Your task to perform on an android device: Open maps Image 0: 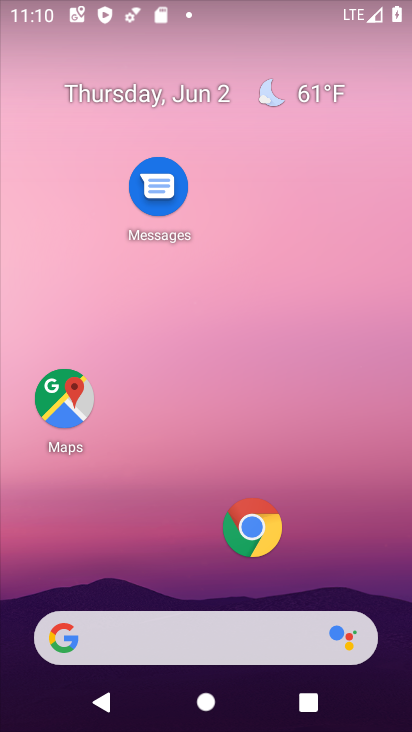
Step 0: press home button
Your task to perform on an android device: Open maps Image 1: 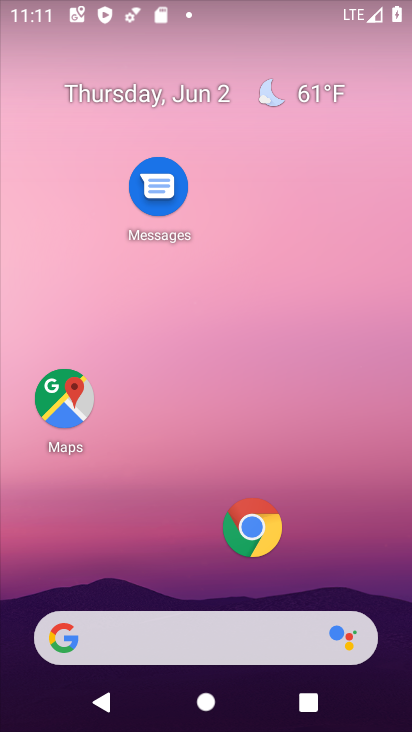
Step 1: click (65, 395)
Your task to perform on an android device: Open maps Image 2: 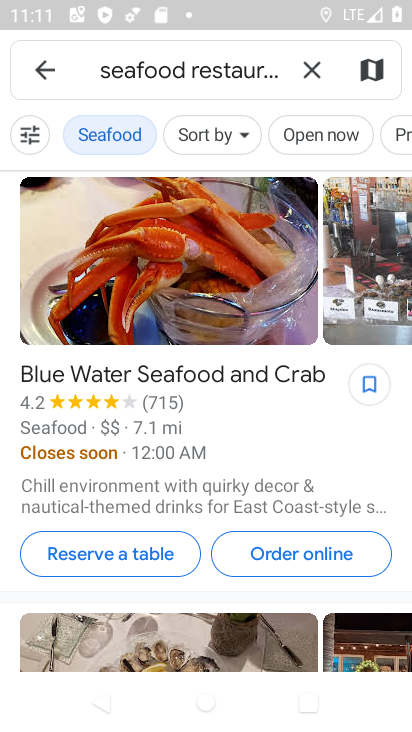
Step 2: click (313, 69)
Your task to perform on an android device: Open maps Image 3: 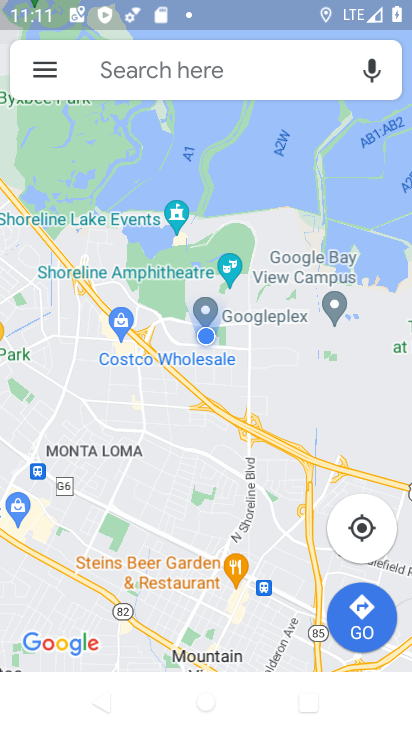
Step 3: task complete